Your task to perform on an android device: turn off location Image 0: 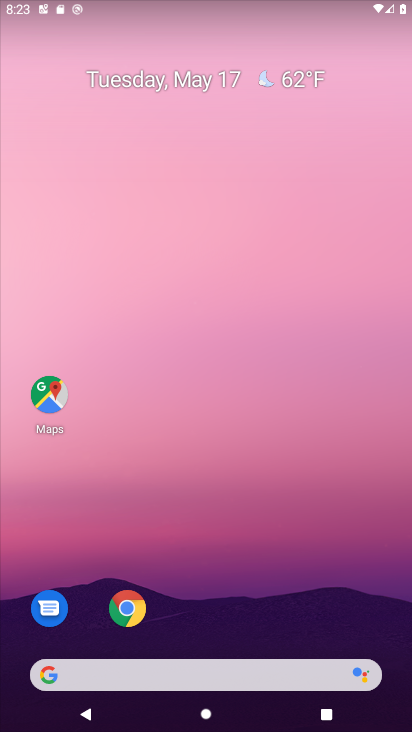
Step 0: drag from (321, 572) to (341, 209)
Your task to perform on an android device: turn off location Image 1: 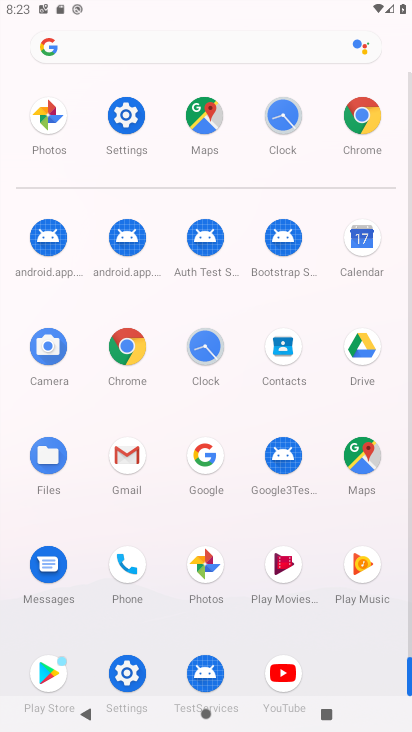
Step 1: click (130, 112)
Your task to perform on an android device: turn off location Image 2: 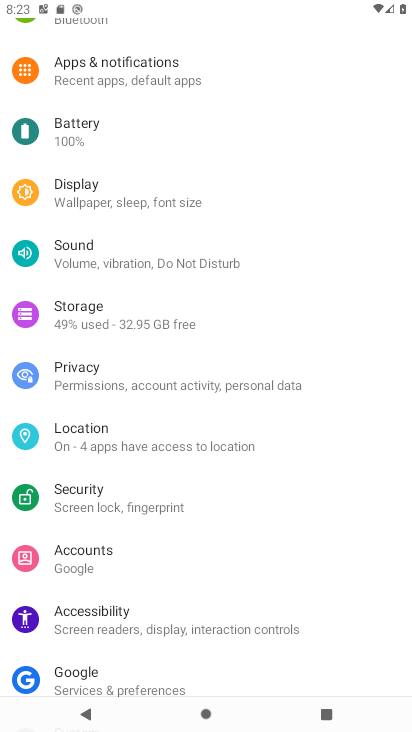
Step 2: drag from (337, 206) to (341, 302)
Your task to perform on an android device: turn off location Image 3: 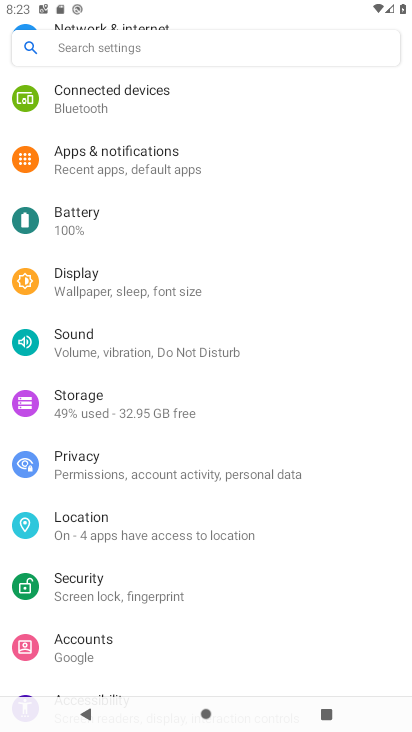
Step 3: drag from (336, 169) to (326, 294)
Your task to perform on an android device: turn off location Image 4: 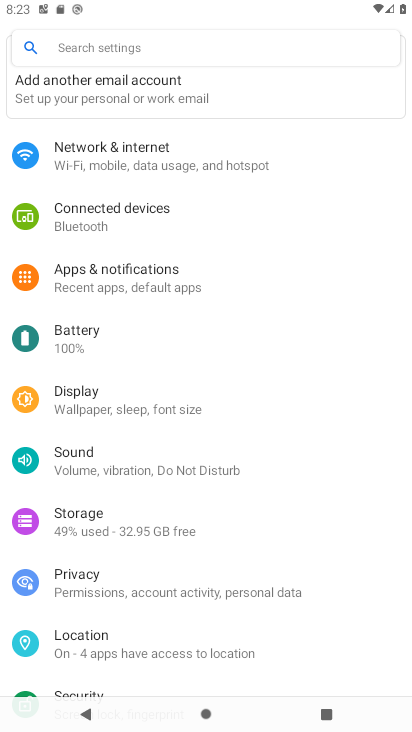
Step 4: drag from (334, 222) to (328, 337)
Your task to perform on an android device: turn off location Image 5: 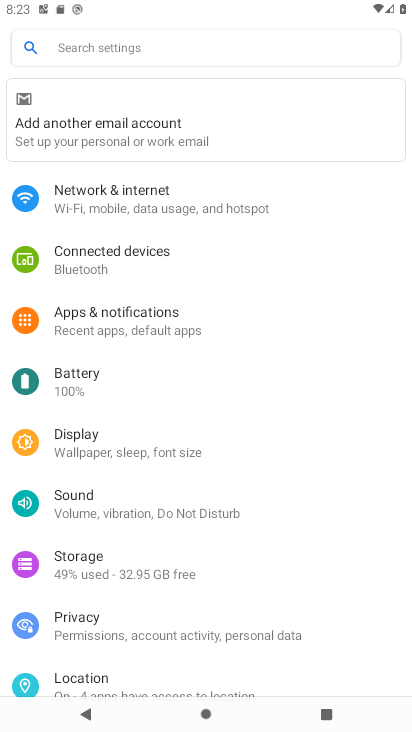
Step 5: drag from (332, 479) to (340, 349)
Your task to perform on an android device: turn off location Image 6: 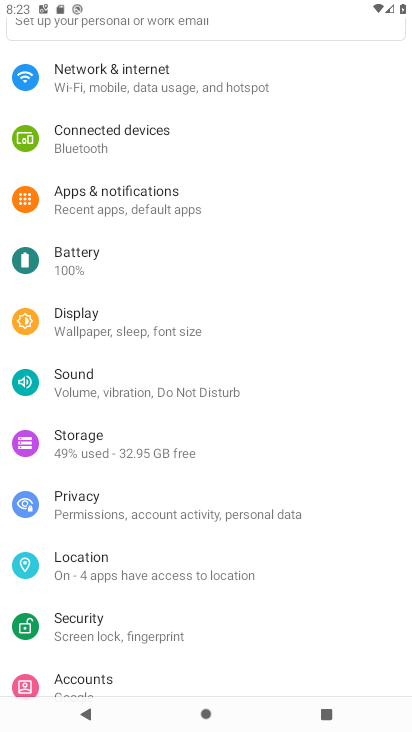
Step 6: drag from (346, 476) to (360, 412)
Your task to perform on an android device: turn off location Image 7: 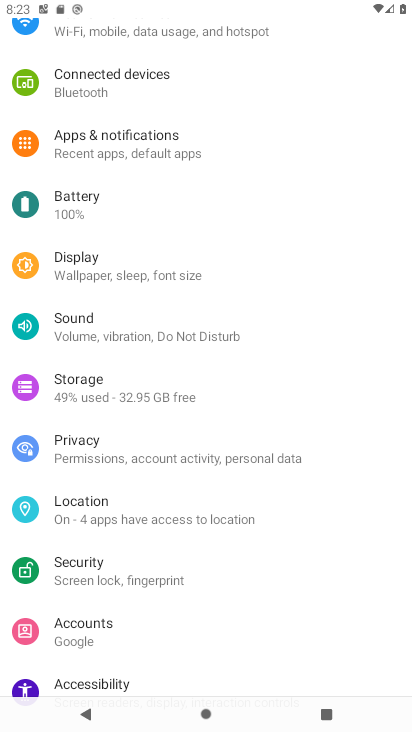
Step 7: drag from (372, 510) to (376, 376)
Your task to perform on an android device: turn off location Image 8: 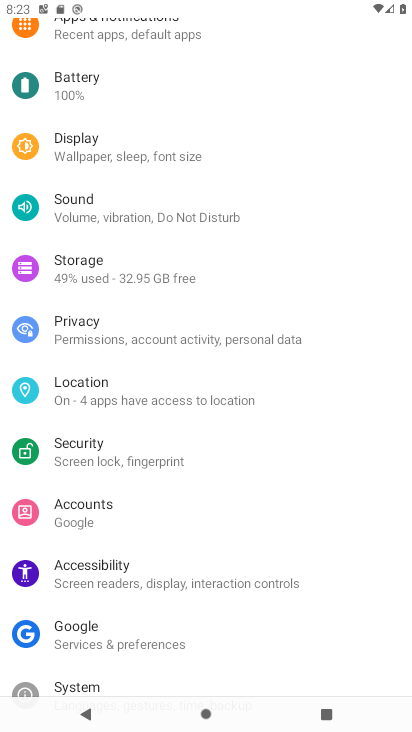
Step 8: drag from (354, 512) to (368, 400)
Your task to perform on an android device: turn off location Image 9: 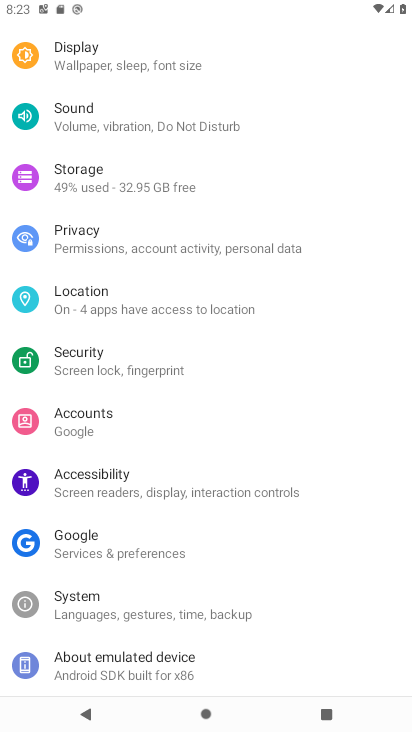
Step 9: drag from (352, 507) to (366, 408)
Your task to perform on an android device: turn off location Image 10: 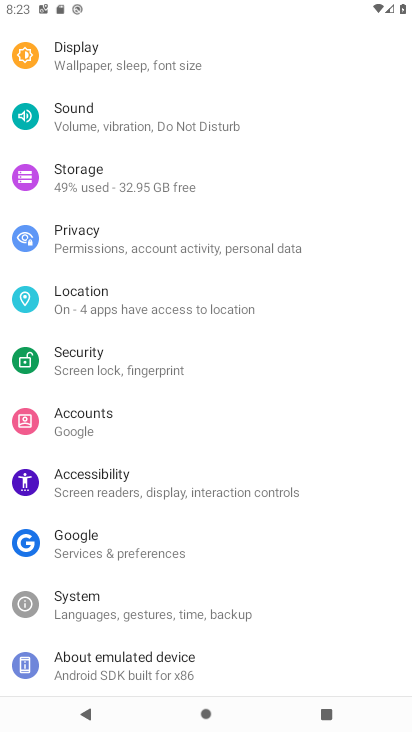
Step 10: drag from (354, 505) to (368, 412)
Your task to perform on an android device: turn off location Image 11: 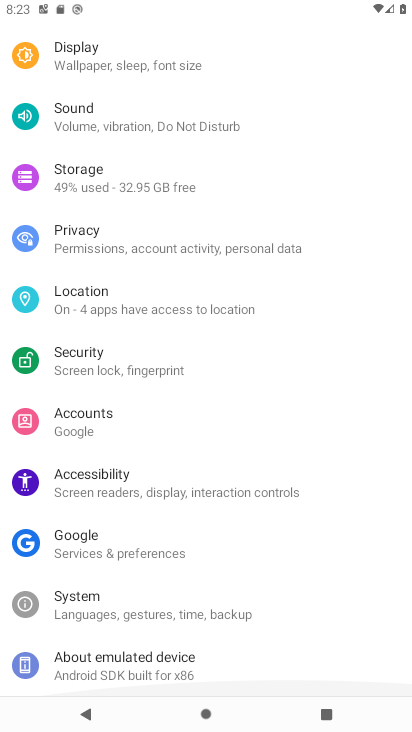
Step 11: drag from (362, 361) to (352, 443)
Your task to perform on an android device: turn off location Image 12: 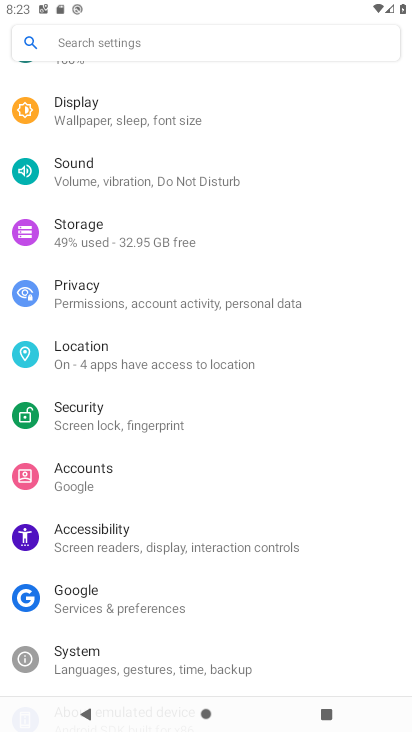
Step 12: drag from (362, 355) to (363, 415)
Your task to perform on an android device: turn off location Image 13: 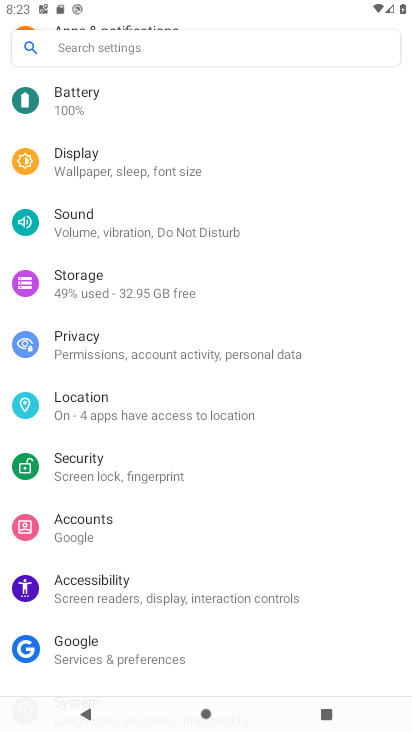
Step 13: drag from (369, 366) to (364, 401)
Your task to perform on an android device: turn off location Image 14: 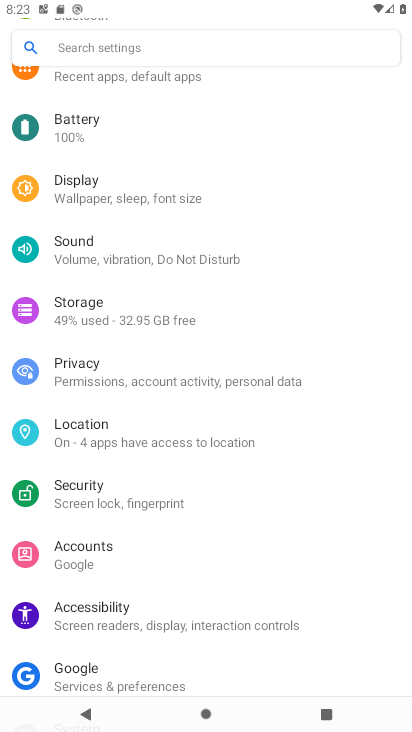
Step 14: drag from (365, 399) to (358, 451)
Your task to perform on an android device: turn off location Image 15: 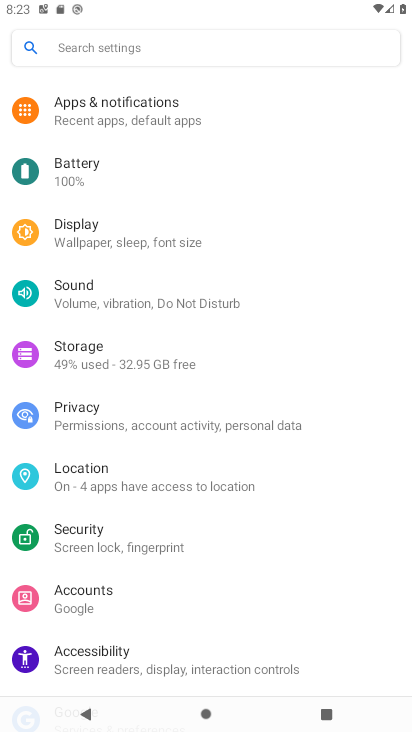
Step 15: drag from (372, 359) to (372, 439)
Your task to perform on an android device: turn off location Image 16: 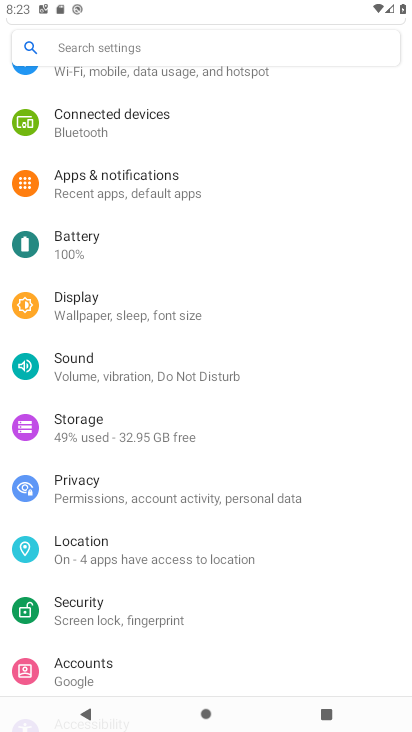
Step 16: drag from (369, 369) to (369, 433)
Your task to perform on an android device: turn off location Image 17: 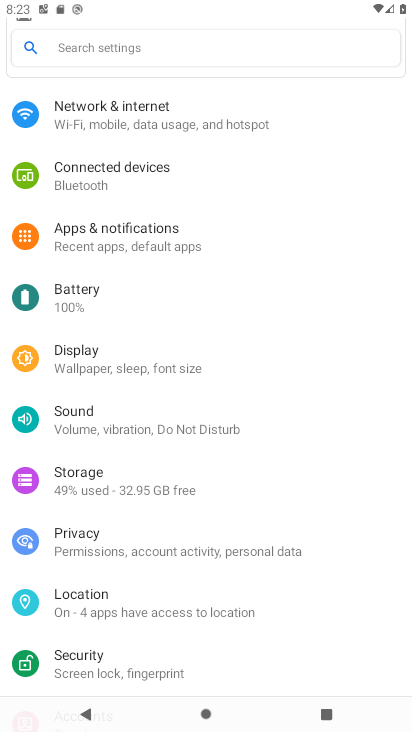
Step 17: drag from (360, 530) to (363, 456)
Your task to perform on an android device: turn off location Image 18: 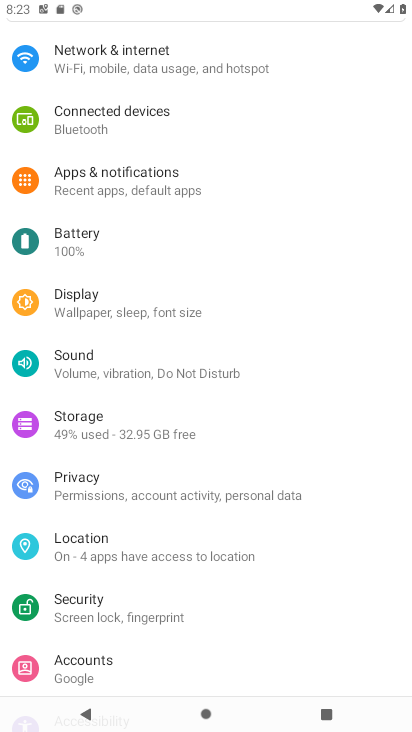
Step 18: click (231, 554)
Your task to perform on an android device: turn off location Image 19: 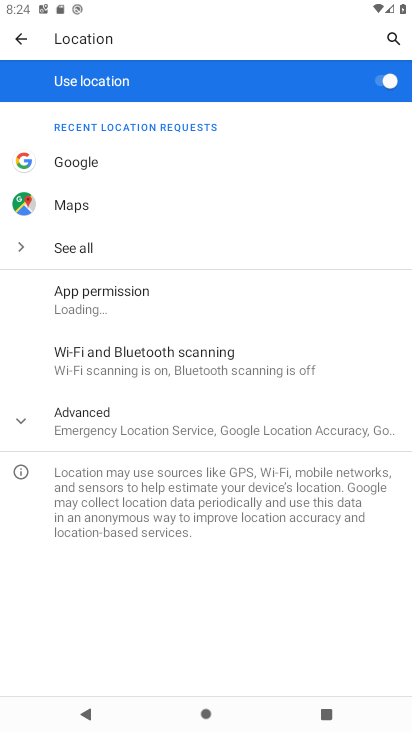
Step 19: click (371, 82)
Your task to perform on an android device: turn off location Image 20: 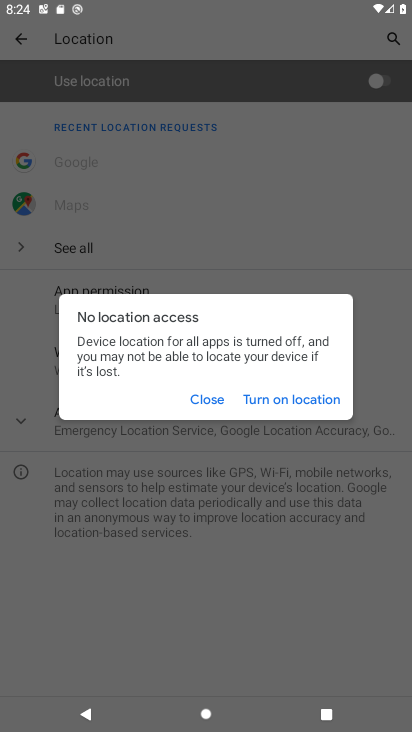
Step 20: task complete